Your task to perform on an android device: turn on javascript in the chrome app Image 0: 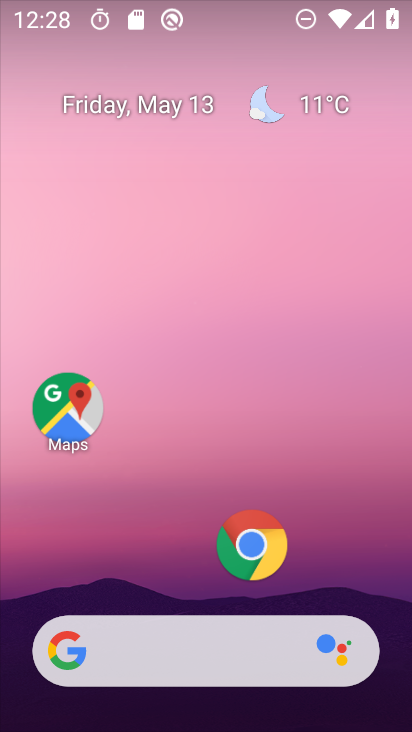
Step 0: click (248, 542)
Your task to perform on an android device: turn on javascript in the chrome app Image 1: 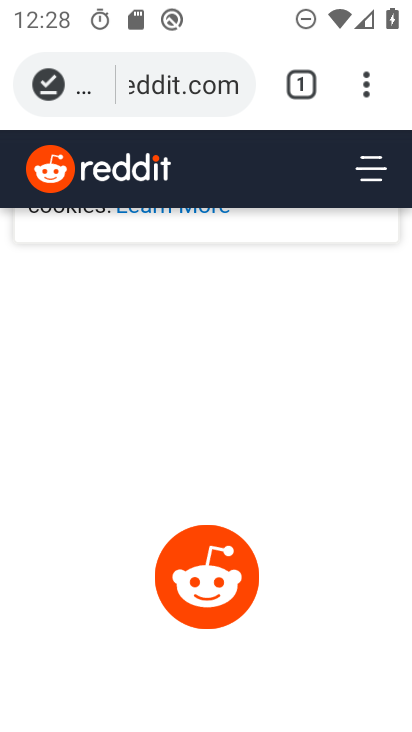
Step 1: click (371, 79)
Your task to perform on an android device: turn on javascript in the chrome app Image 2: 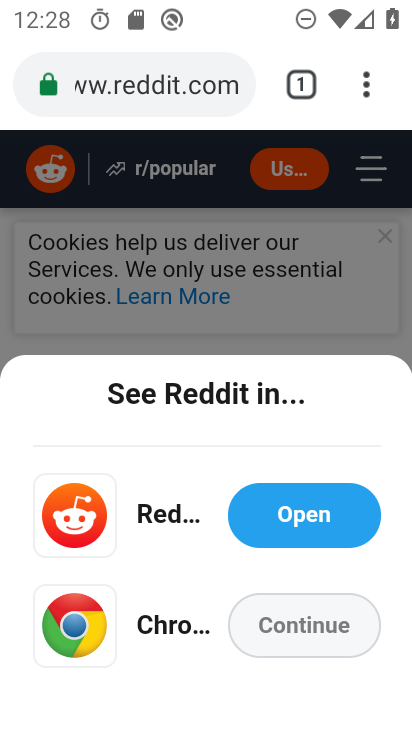
Step 2: click (376, 88)
Your task to perform on an android device: turn on javascript in the chrome app Image 3: 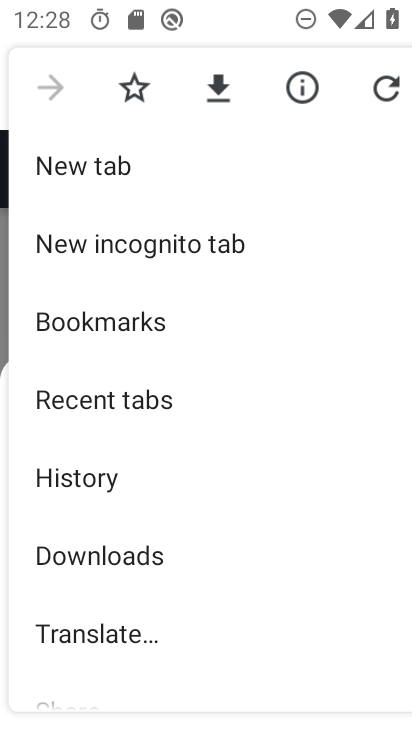
Step 3: drag from (139, 629) to (202, 173)
Your task to perform on an android device: turn on javascript in the chrome app Image 4: 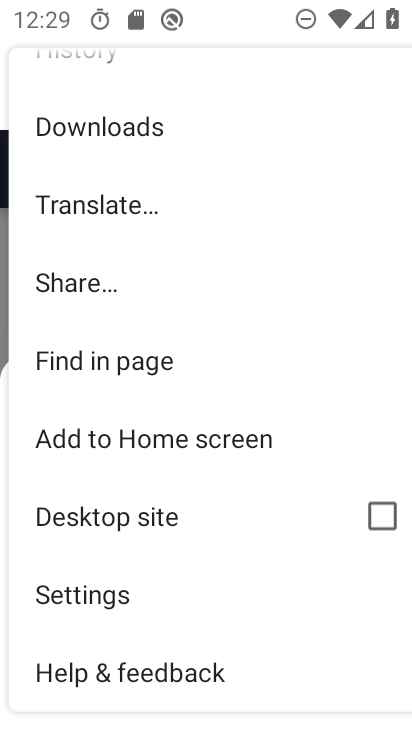
Step 4: click (140, 590)
Your task to perform on an android device: turn on javascript in the chrome app Image 5: 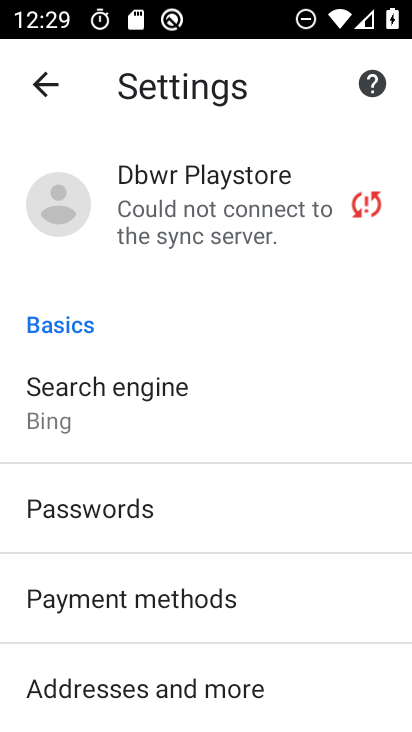
Step 5: drag from (248, 642) to (275, 299)
Your task to perform on an android device: turn on javascript in the chrome app Image 6: 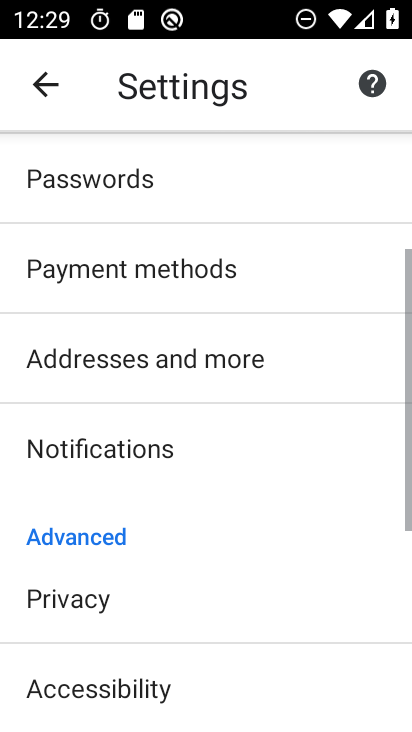
Step 6: click (286, 134)
Your task to perform on an android device: turn on javascript in the chrome app Image 7: 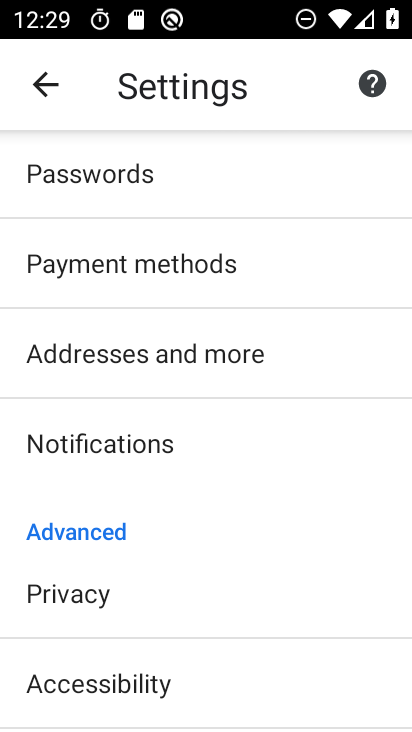
Step 7: drag from (210, 644) to (232, 234)
Your task to perform on an android device: turn on javascript in the chrome app Image 8: 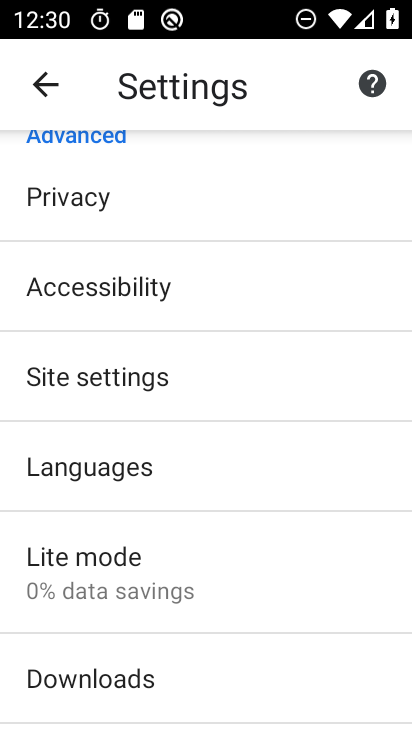
Step 8: click (165, 378)
Your task to perform on an android device: turn on javascript in the chrome app Image 9: 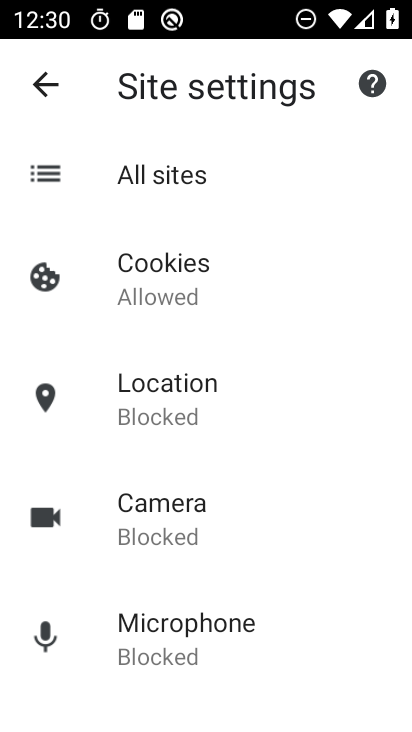
Step 9: drag from (209, 647) to (224, 222)
Your task to perform on an android device: turn on javascript in the chrome app Image 10: 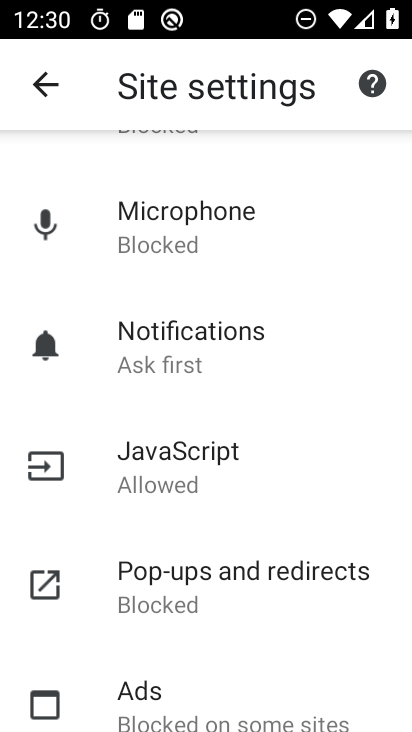
Step 10: click (206, 475)
Your task to perform on an android device: turn on javascript in the chrome app Image 11: 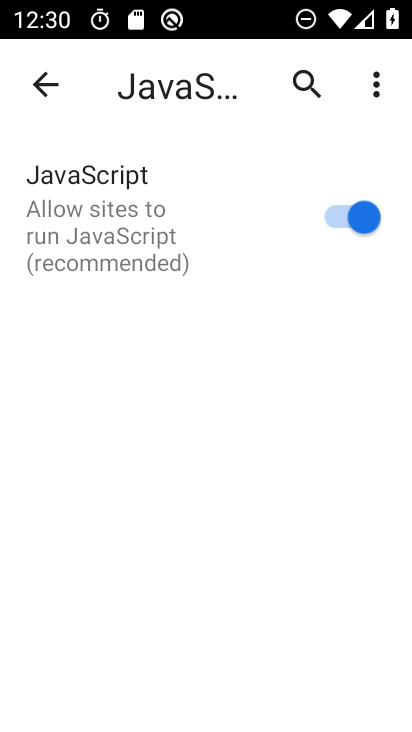
Step 11: task complete